Your task to perform on an android device: turn pop-ups off in chrome Image 0: 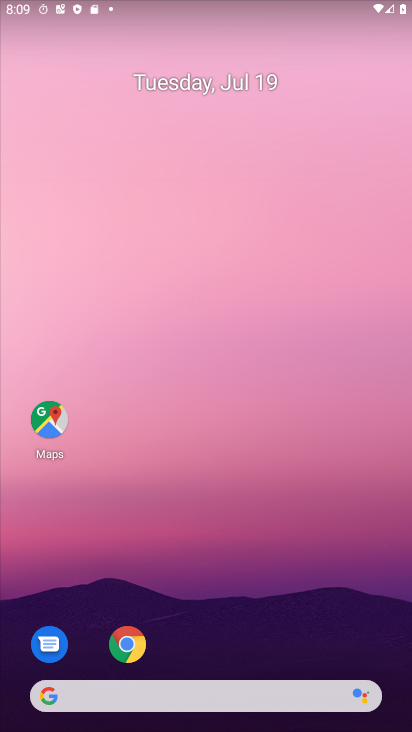
Step 0: click (114, 632)
Your task to perform on an android device: turn pop-ups off in chrome Image 1: 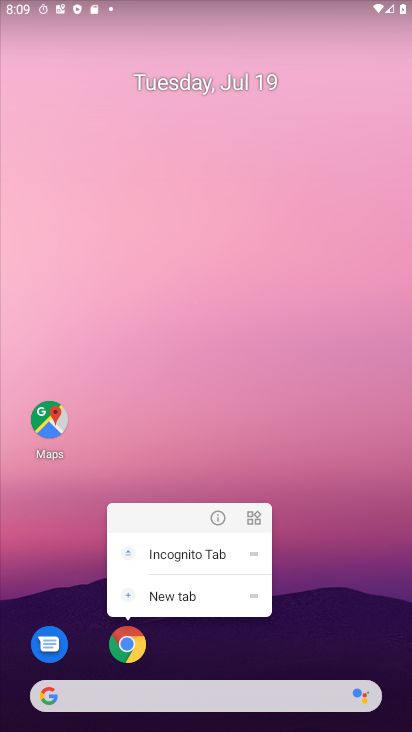
Step 1: click (143, 621)
Your task to perform on an android device: turn pop-ups off in chrome Image 2: 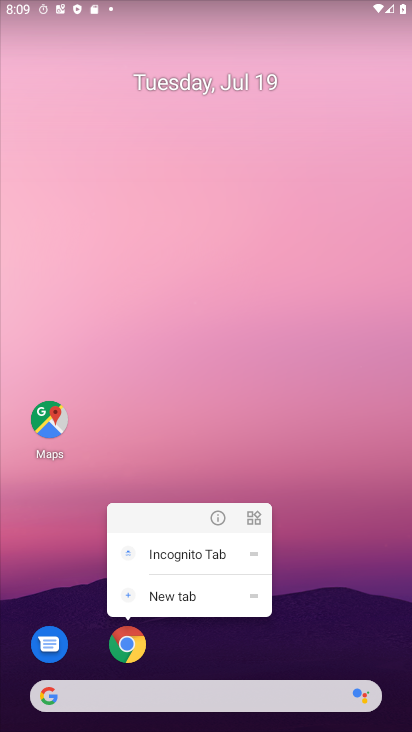
Step 2: click (131, 640)
Your task to perform on an android device: turn pop-ups off in chrome Image 3: 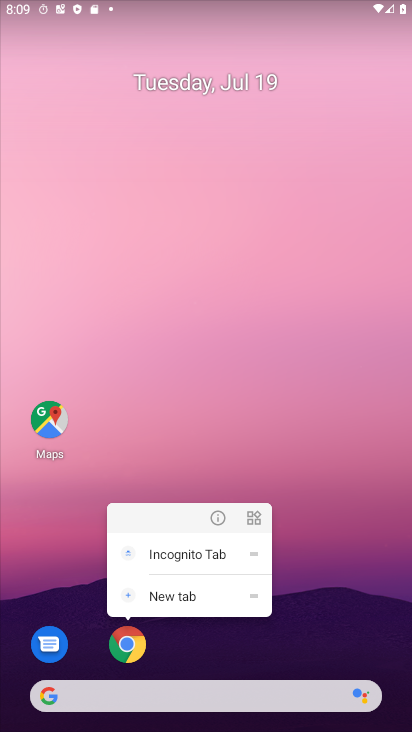
Step 3: click (125, 648)
Your task to perform on an android device: turn pop-ups off in chrome Image 4: 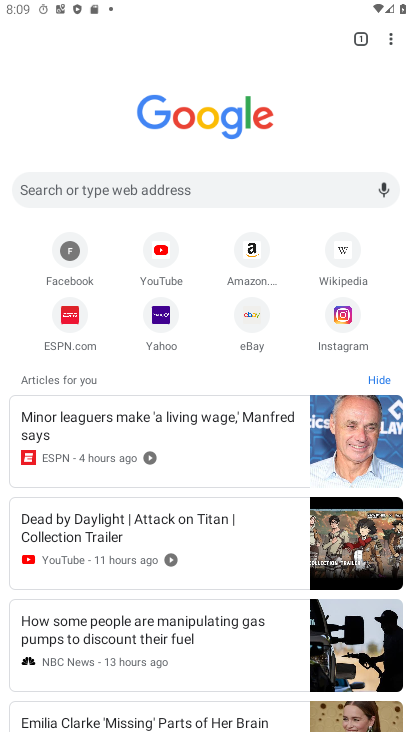
Step 4: click (394, 35)
Your task to perform on an android device: turn pop-ups off in chrome Image 5: 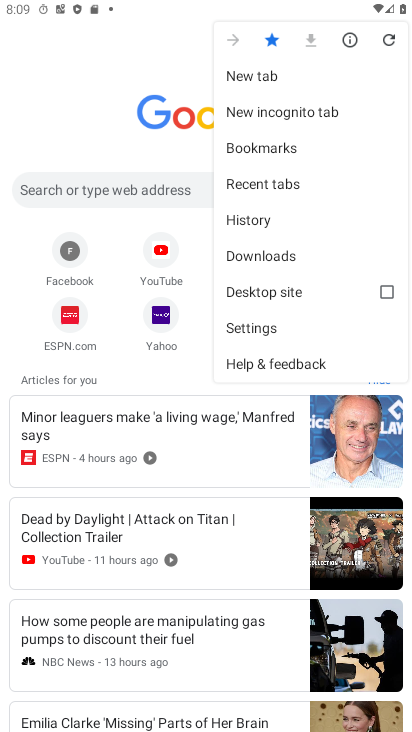
Step 5: click (249, 326)
Your task to perform on an android device: turn pop-ups off in chrome Image 6: 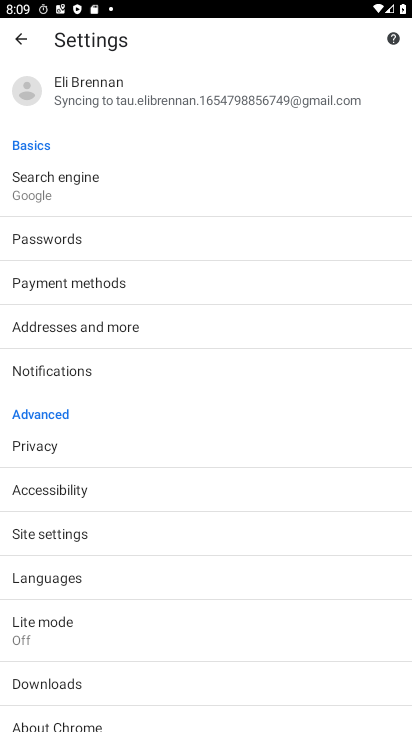
Step 6: click (93, 534)
Your task to perform on an android device: turn pop-ups off in chrome Image 7: 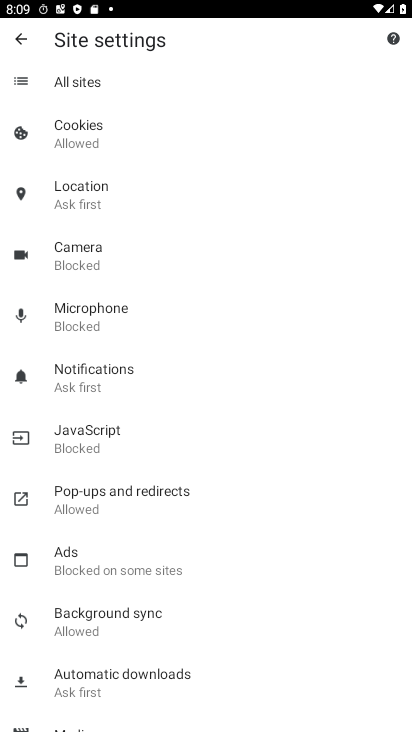
Step 7: click (93, 490)
Your task to perform on an android device: turn pop-ups off in chrome Image 8: 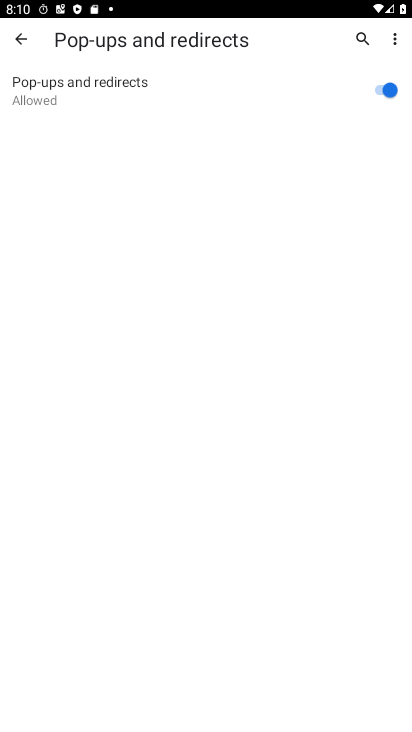
Step 8: task complete